Your task to perform on an android device: turn pop-ups on in chrome Image 0: 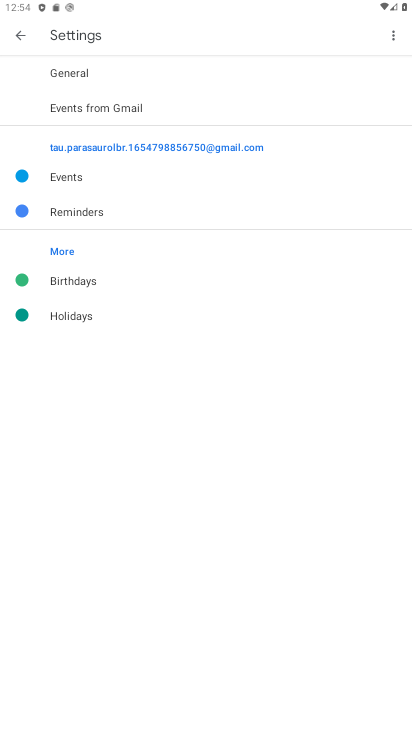
Step 0: press home button
Your task to perform on an android device: turn pop-ups on in chrome Image 1: 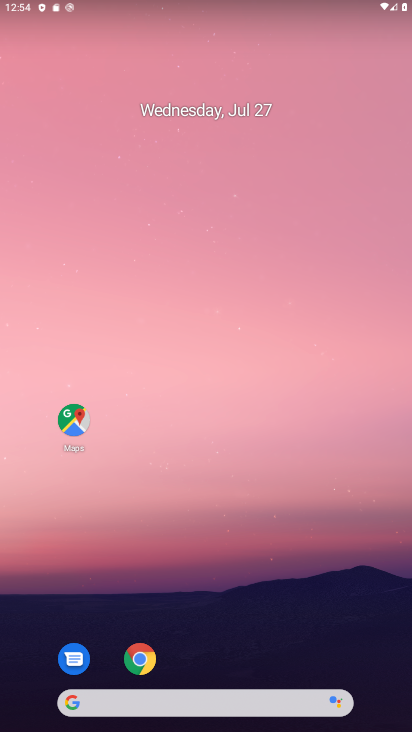
Step 1: drag from (326, 403) to (320, 17)
Your task to perform on an android device: turn pop-ups on in chrome Image 2: 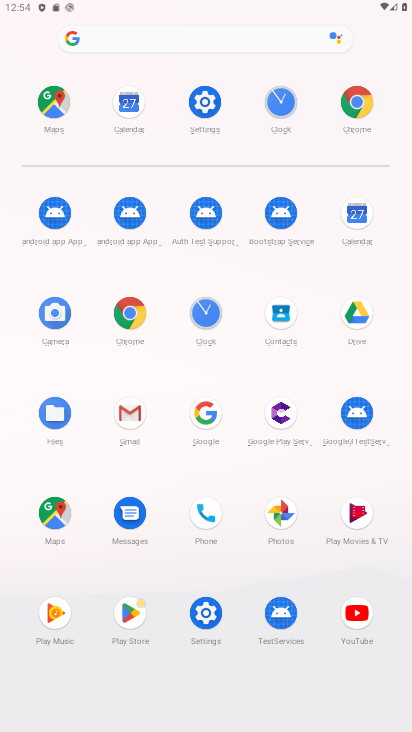
Step 2: click (355, 98)
Your task to perform on an android device: turn pop-ups on in chrome Image 3: 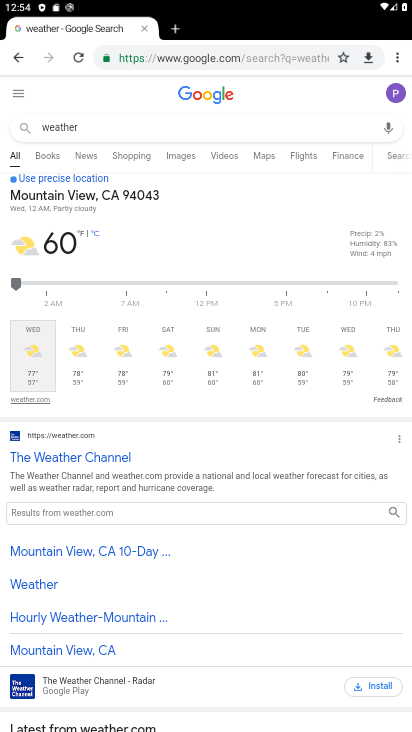
Step 3: drag from (403, 58) to (309, 352)
Your task to perform on an android device: turn pop-ups on in chrome Image 4: 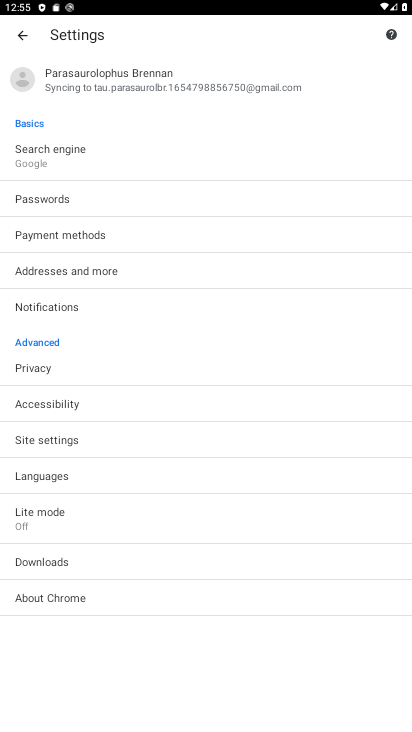
Step 4: click (62, 441)
Your task to perform on an android device: turn pop-ups on in chrome Image 5: 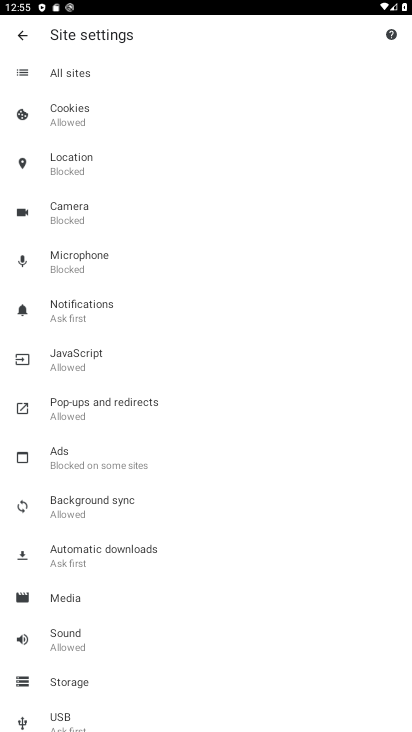
Step 5: click (72, 413)
Your task to perform on an android device: turn pop-ups on in chrome Image 6: 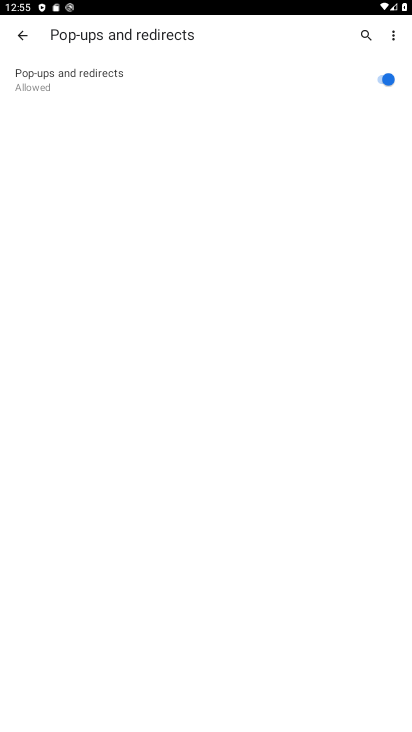
Step 6: task complete